Your task to perform on an android device: Go to network settings Image 0: 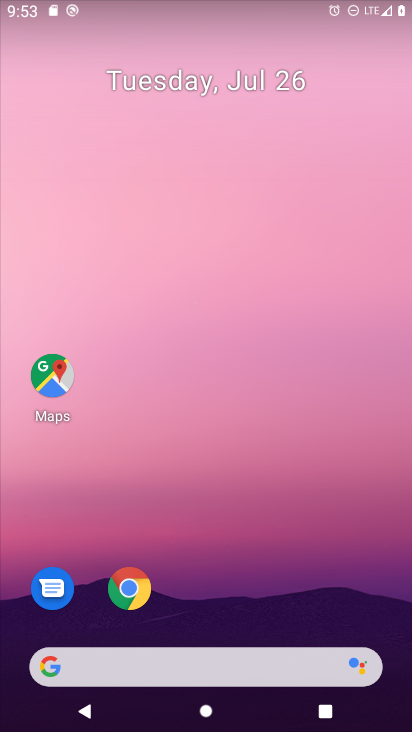
Step 0: drag from (259, 597) to (189, 82)
Your task to perform on an android device: Go to network settings Image 1: 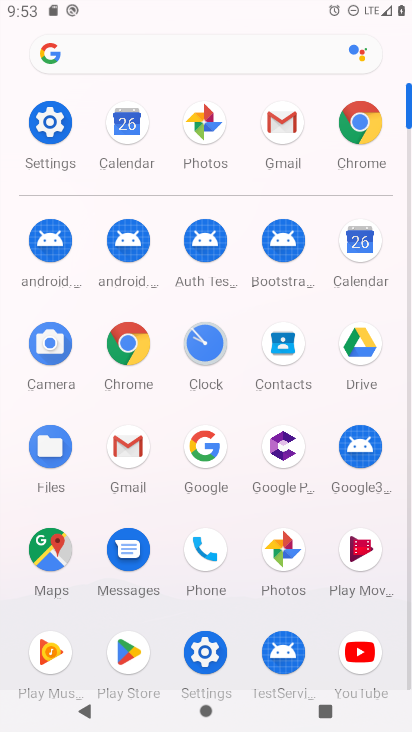
Step 1: click (44, 151)
Your task to perform on an android device: Go to network settings Image 2: 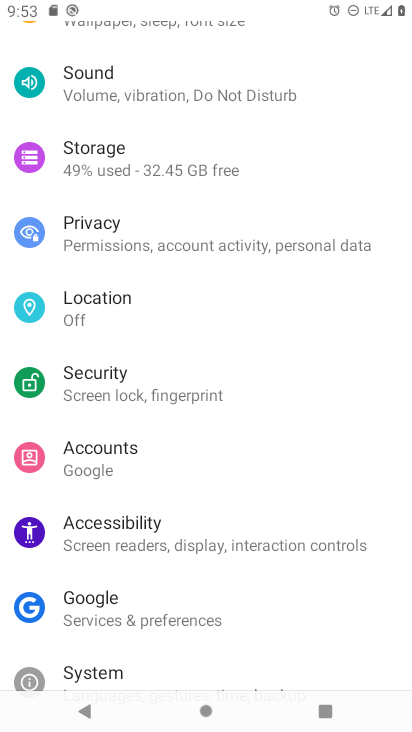
Step 2: drag from (141, 218) to (192, 559)
Your task to perform on an android device: Go to network settings Image 3: 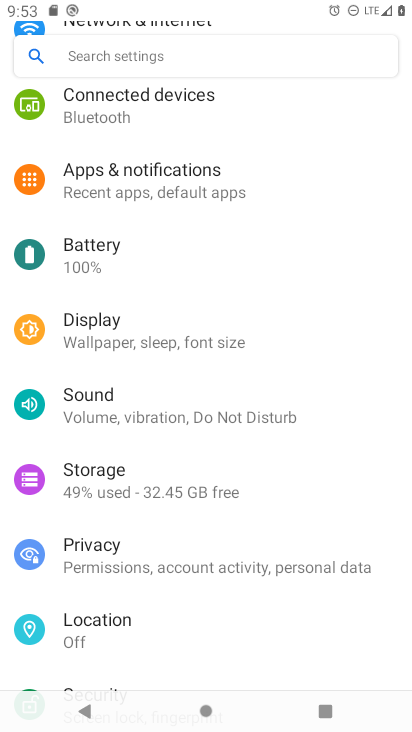
Step 3: drag from (231, 221) to (205, 573)
Your task to perform on an android device: Go to network settings Image 4: 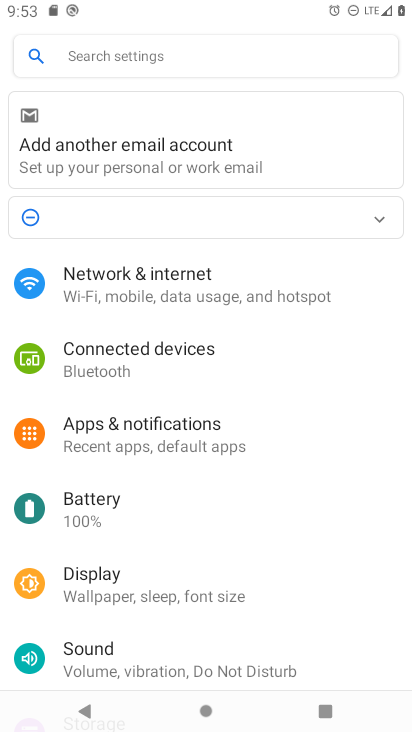
Step 4: click (168, 290)
Your task to perform on an android device: Go to network settings Image 5: 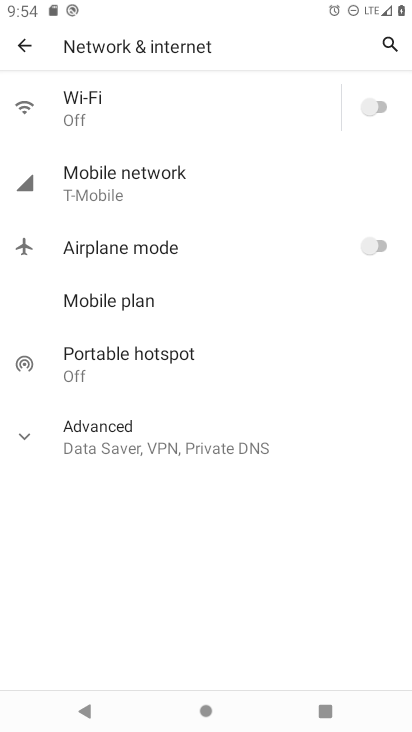
Step 5: click (135, 177)
Your task to perform on an android device: Go to network settings Image 6: 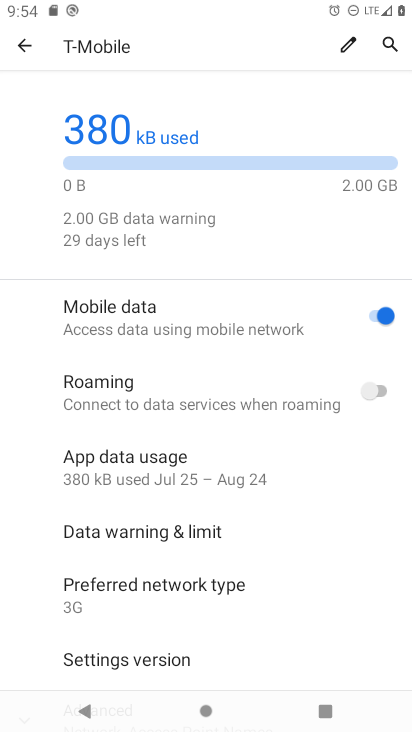
Step 6: task complete